Your task to perform on an android device: see tabs open on other devices in the chrome app Image 0: 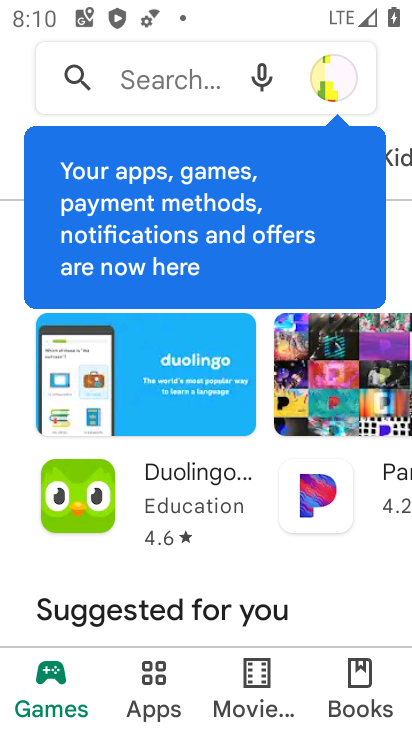
Step 0: press back button
Your task to perform on an android device: see tabs open on other devices in the chrome app Image 1: 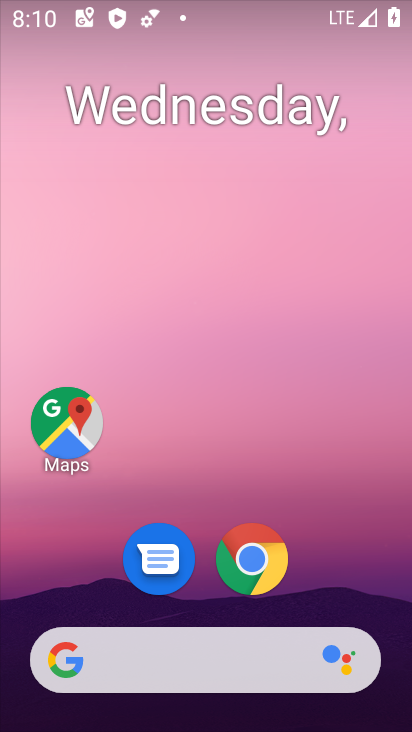
Step 1: click (252, 558)
Your task to perform on an android device: see tabs open on other devices in the chrome app Image 2: 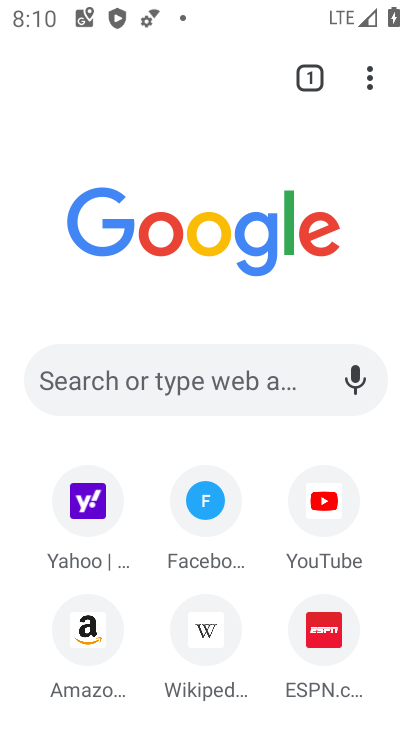
Step 2: task complete